Your task to perform on an android device: turn on javascript in the chrome app Image 0: 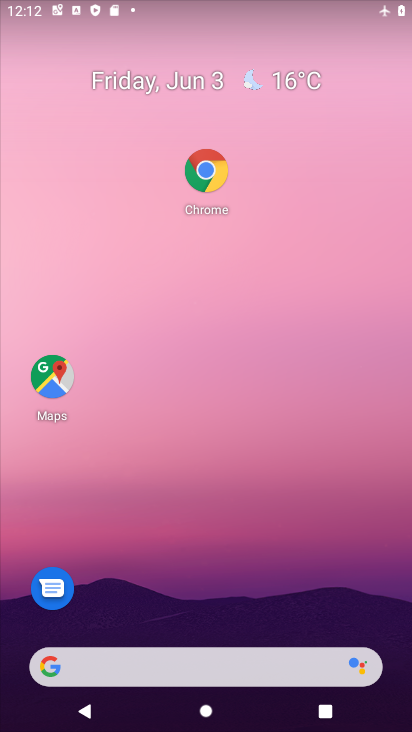
Step 0: drag from (213, 551) to (269, 238)
Your task to perform on an android device: turn on javascript in the chrome app Image 1: 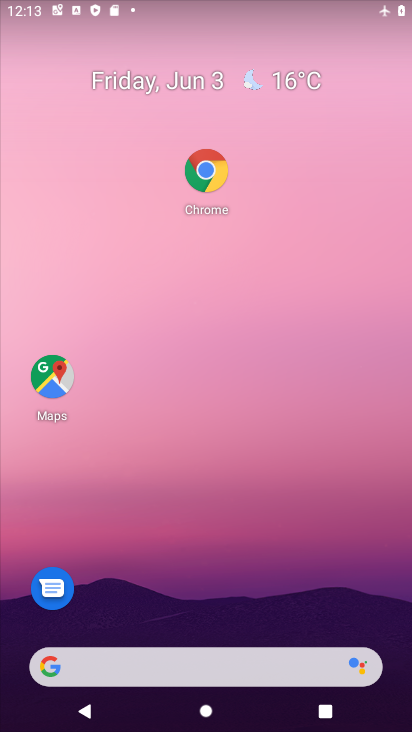
Step 1: click (219, 182)
Your task to perform on an android device: turn on javascript in the chrome app Image 2: 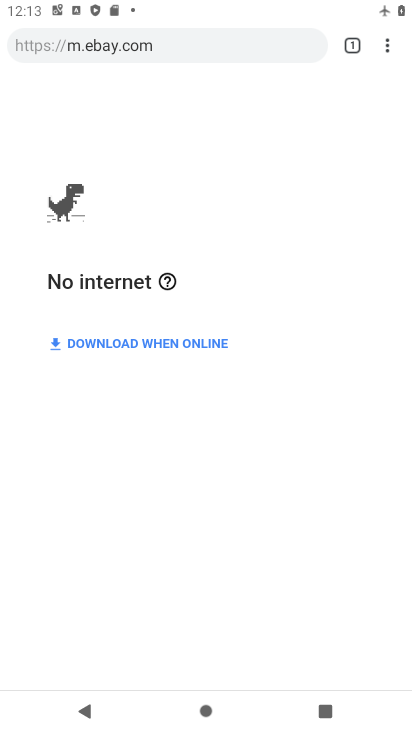
Step 2: click (392, 50)
Your task to perform on an android device: turn on javascript in the chrome app Image 3: 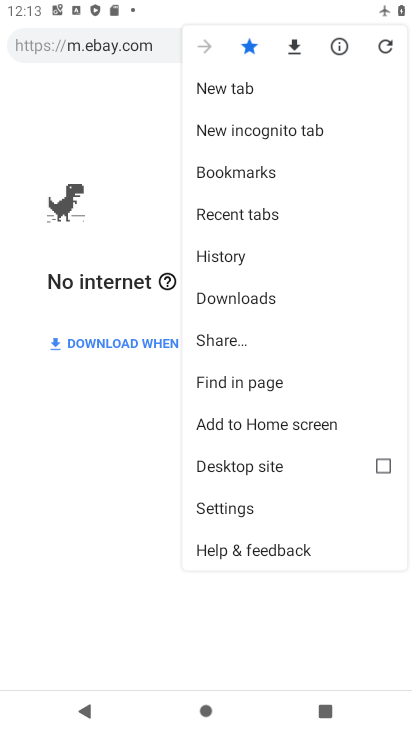
Step 3: click (237, 510)
Your task to perform on an android device: turn on javascript in the chrome app Image 4: 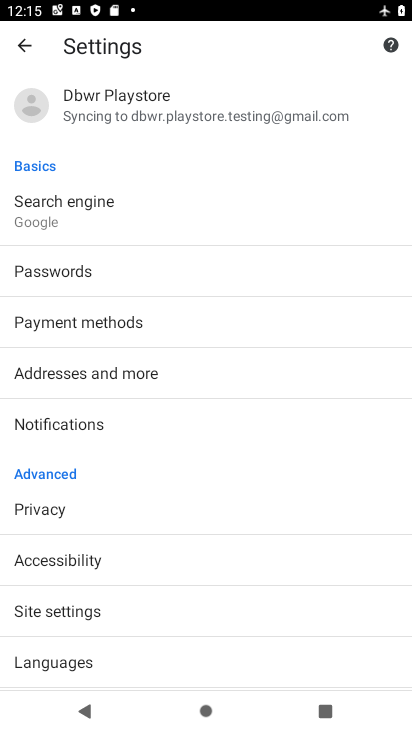
Step 4: click (145, 614)
Your task to perform on an android device: turn on javascript in the chrome app Image 5: 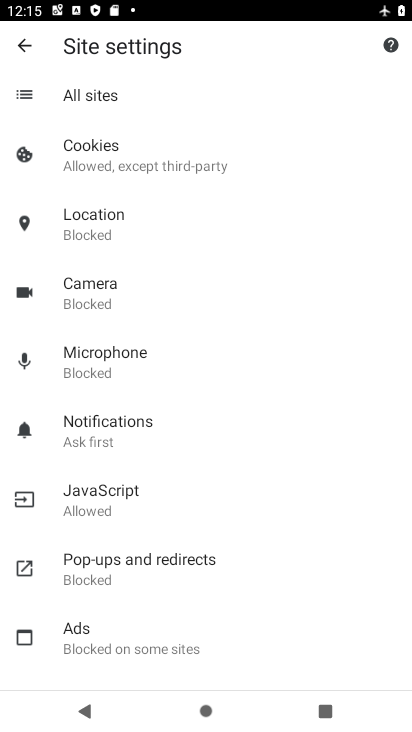
Step 5: click (135, 517)
Your task to perform on an android device: turn on javascript in the chrome app Image 6: 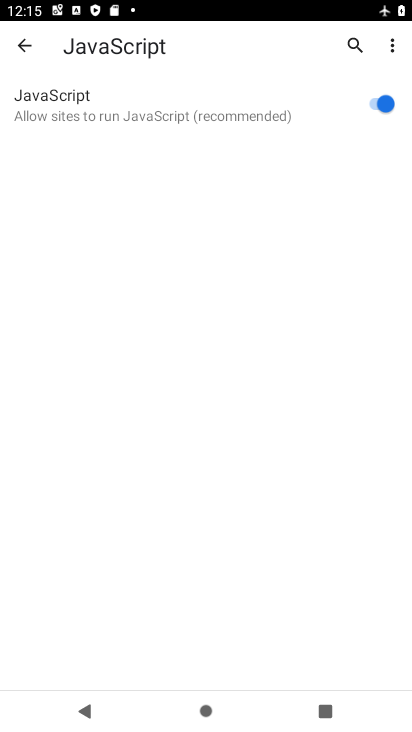
Step 6: task complete